Your task to perform on an android device: Clear all items from cart on newegg.com. Add "dell xps" to the cart on newegg.com, then select checkout. Image 0: 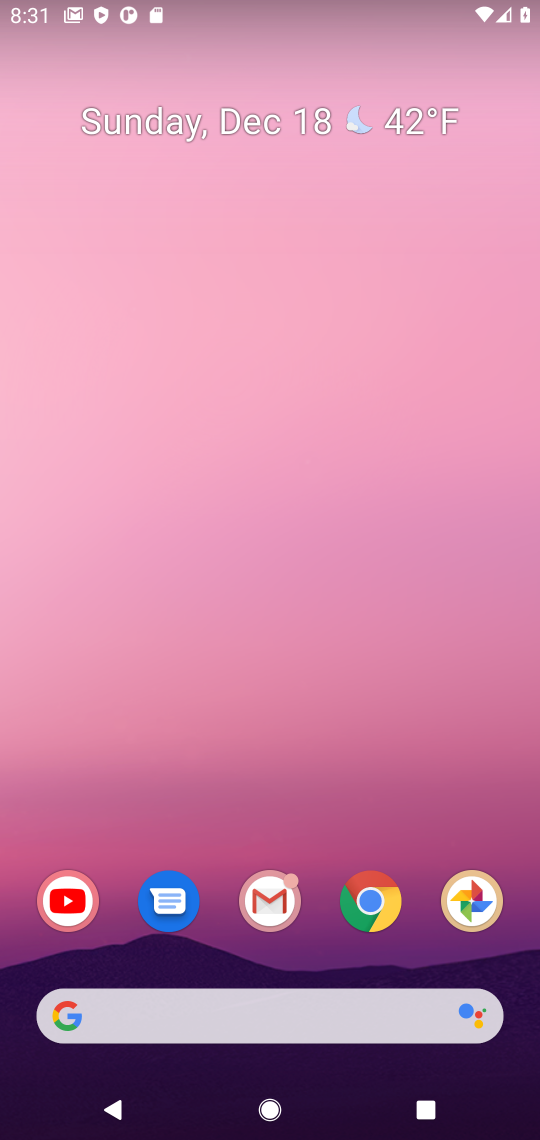
Step 0: click (361, 928)
Your task to perform on an android device: Clear all items from cart on newegg.com. Add "dell xps" to the cart on newegg.com, then select checkout. Image 1: 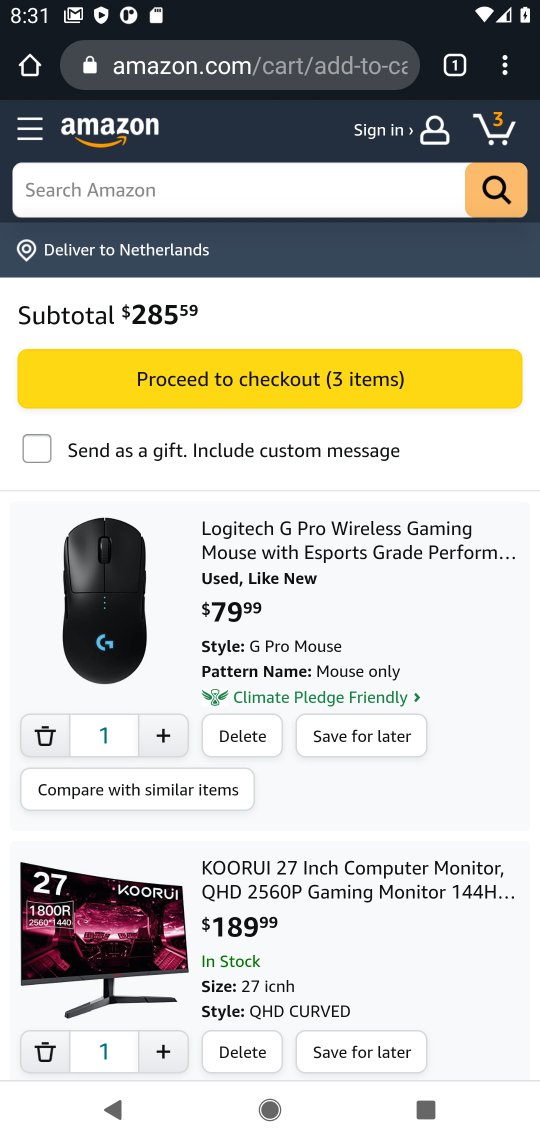
Step 1: click (333, 215)
Your task to perform on an android device: Clear all items from cart on newegg.com. Add "dell xps" to the cart on newegg.com, then select checkout. Image 2: 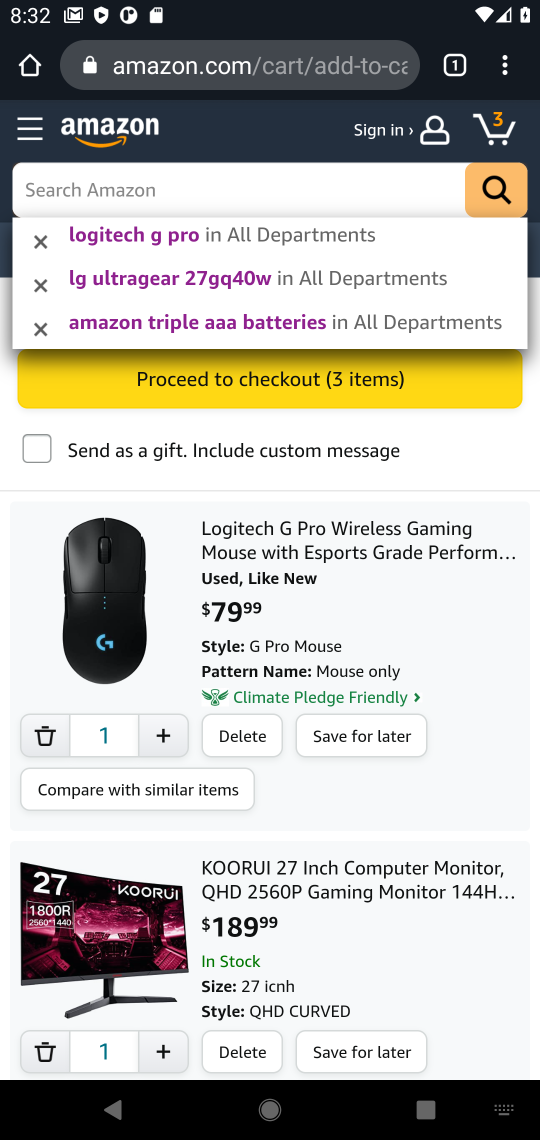
Step 2: type "dell xps"
Your task to perform on an android device: Clear all items from cart on newegg.com. Add "dell xps" to the cart on newegg.com, then select checkout. Image 3: 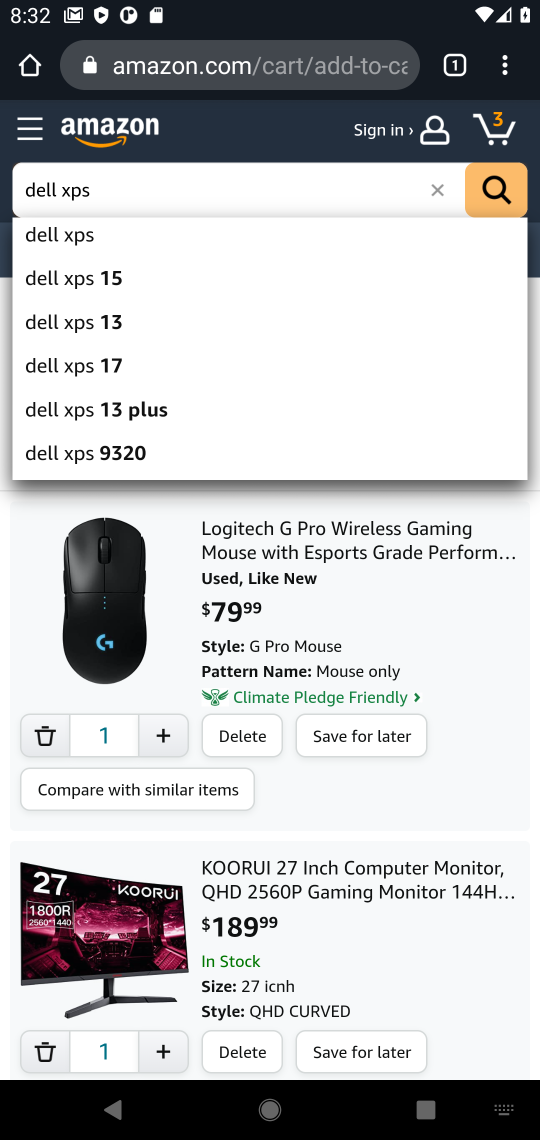
Step 3: click (488, 206)
Your task to perform on an android device: Clear all items from cart on newegg.com. Add "dell xps" to the cart on newegg.com, then select checkout. Image 4: 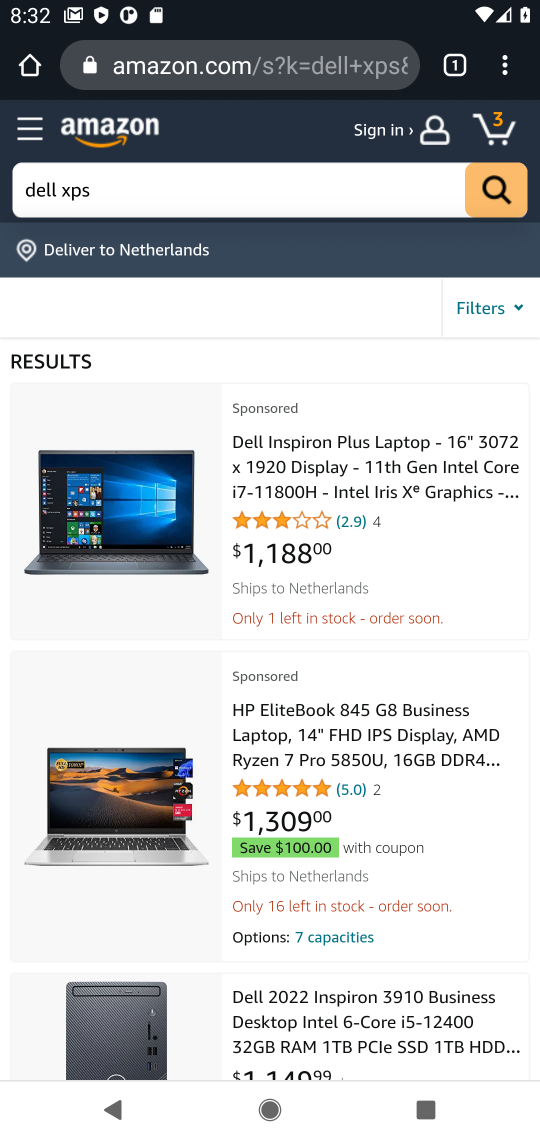
Step 4: click (265, 482)
Your task to perform on an android device: Clear all items from cart on newegg.com. Add "dell xps" to the cart on newegg.com, then select checkout. Image 5: 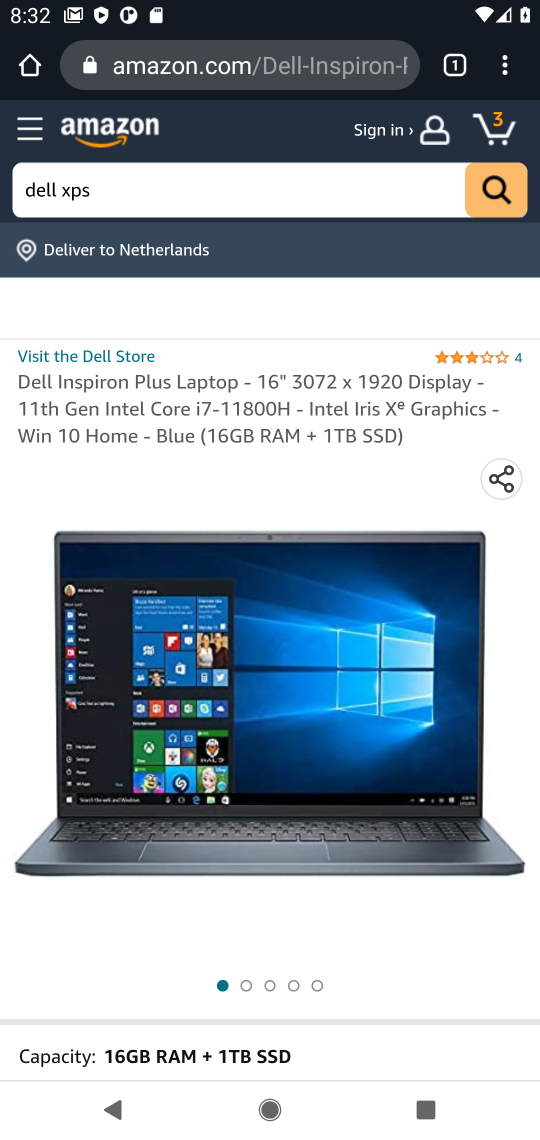
Step 5: drag from (210, 811) to (366, 385)
Your task to perform on an android device: Clear all items from cart on newegg.com. Add "dell xps" to the cart on newegg.com, then select checkout. Image 6: 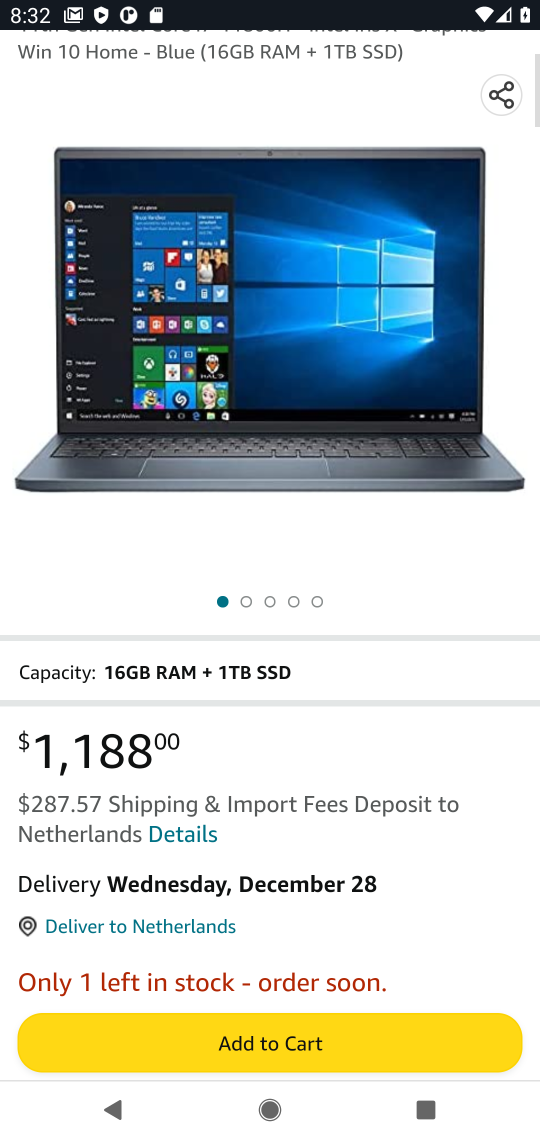
Step 6: drag from (319, 984) to (358, 796)
Your task to perform on an android device: Clear all items from cart on newegg.com. Add "dell xps" to the cart on newegg.com, then select checkout. Image 7: 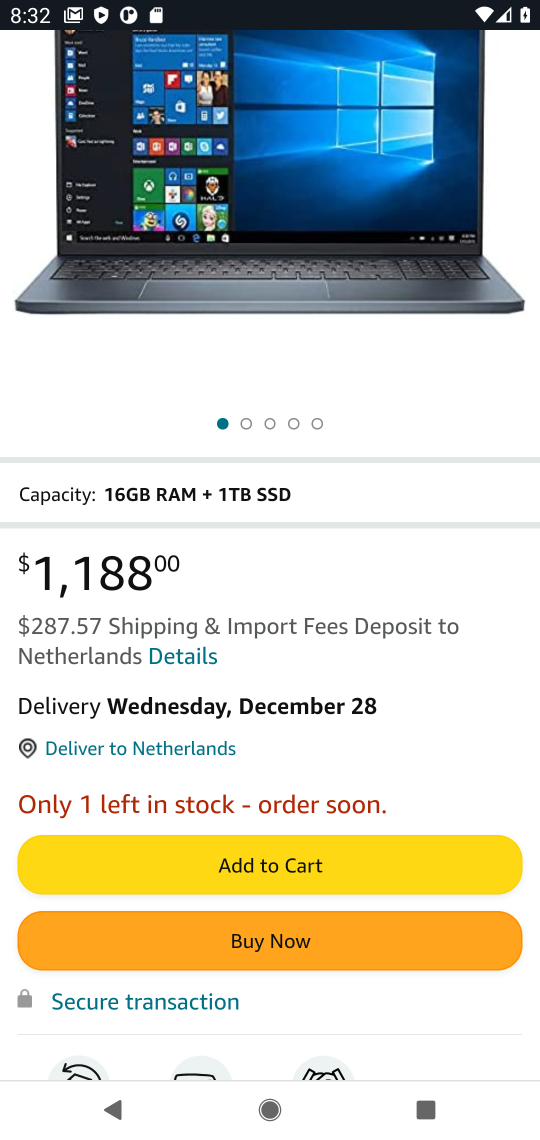
Step 7: click (348, 872)
Your task to perform on an android device: Clear all items from cart on newegg.com. Add "dell xps" to the cart on newegg.com, then select checkout. Image 8: 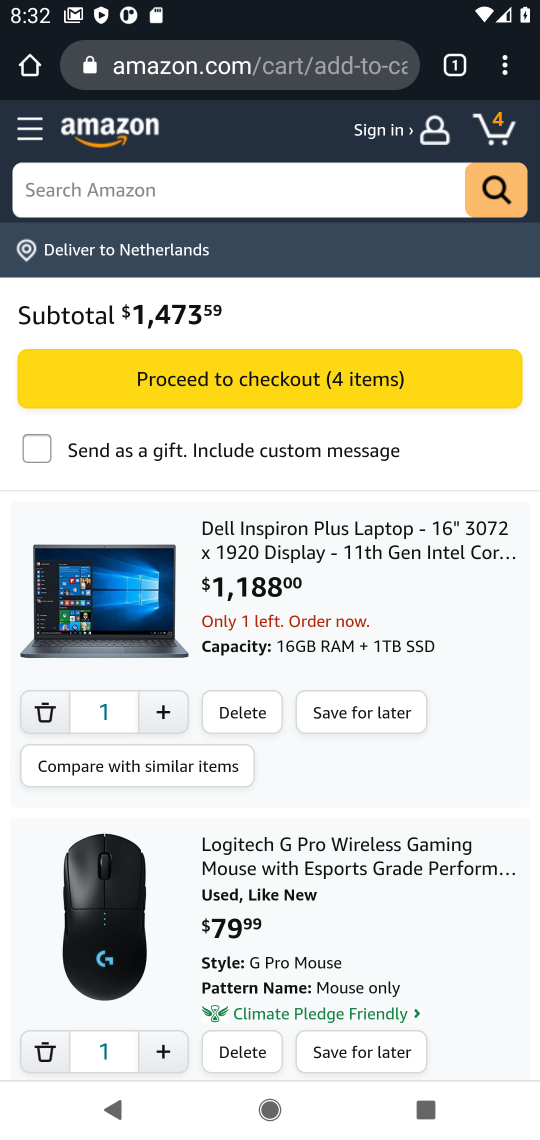
Step 8: task complete